Your task to perform on an android device: turn notification dots on Image 0: 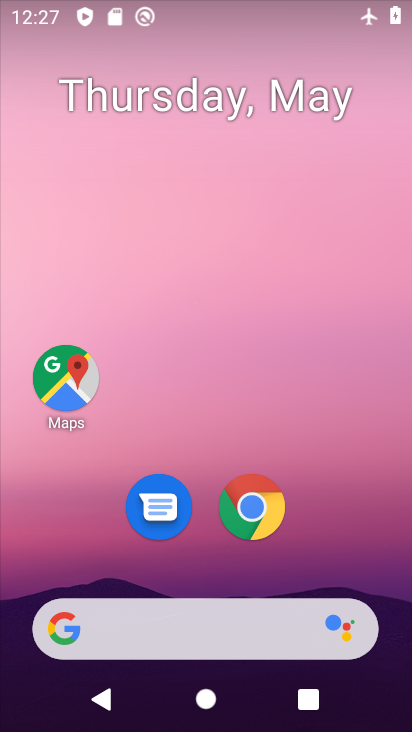
Step 0: drag from (186, 575) to (243, 141)
Your task to perform on an android device: turn notification dots on Image 1: 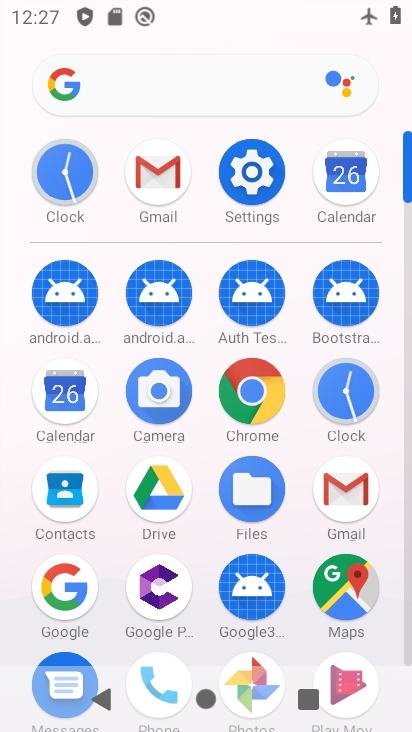
Step 1: click (243, 141)
Your task to perform on an android device: turn notification dots on Image 2: 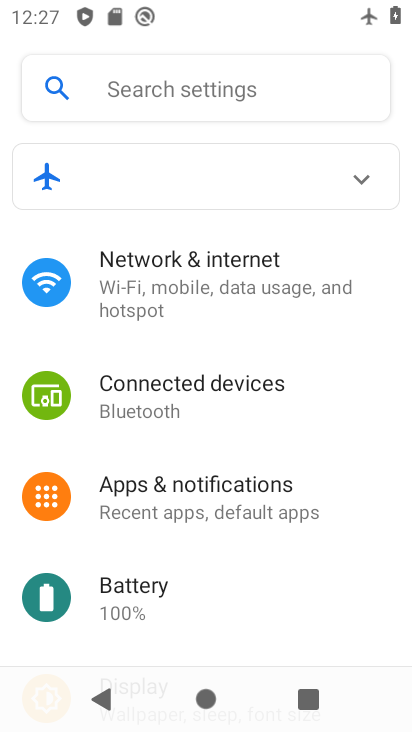
Step 2: click (196, 501)
Your task to perform on an android device: turn notification dots on Image 3: 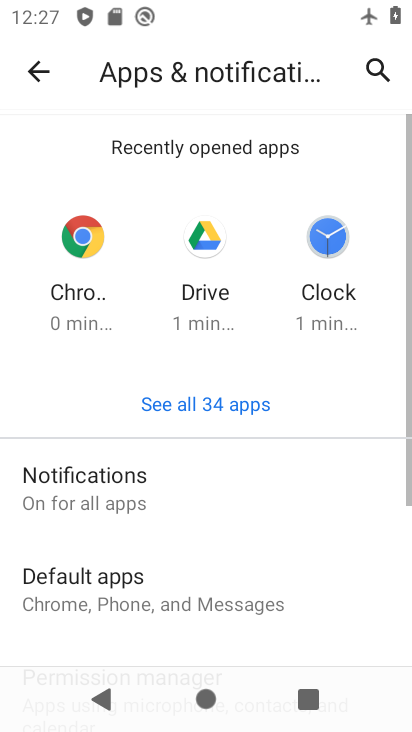
Step 3: click (196, 501)
Your task to perform on an android device: turn notification dots on Image 4: 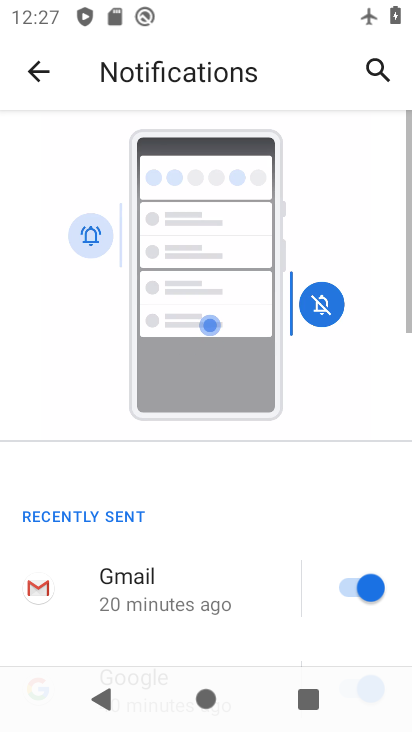
Step 4: drag from (196, 501) to (209, 217)
Your task to perform on an android device: turn notification dots on Image 5: 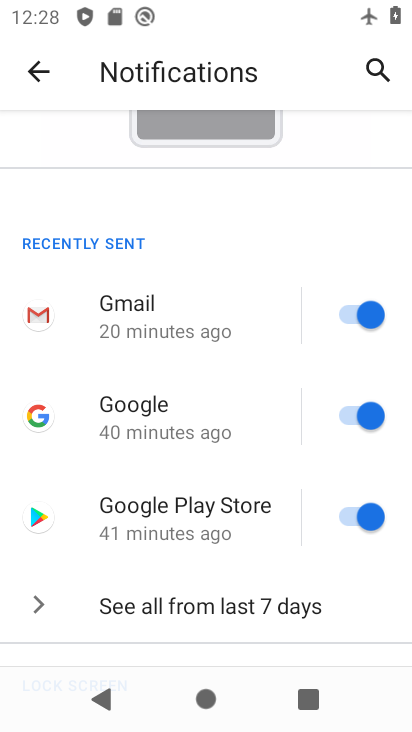
Step 5: drag from (213, 633) to (220, 334)
Your task to perform on an android device: turn notification dots on Image 6: 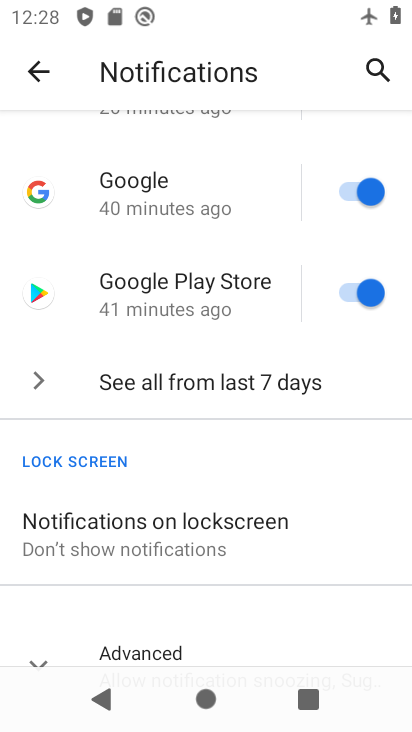
Step 6: drag from (200, 617) to (213, 364)
Your task to perform on an android device: turn notification dots on Image 7: 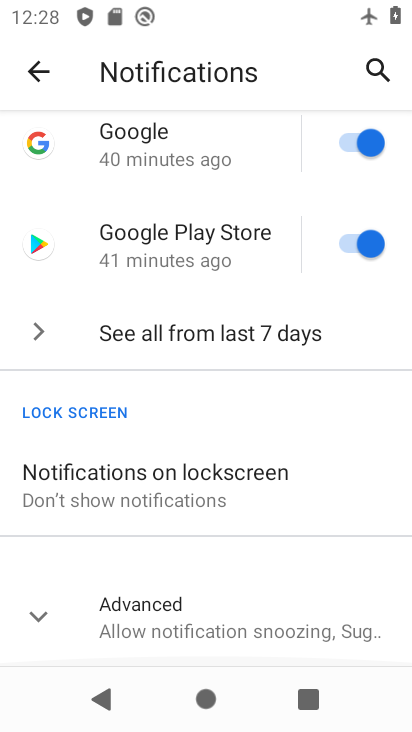
Step 7: click (183, 607)
Your task to perform on an android device: turn notification dots on Image 8: 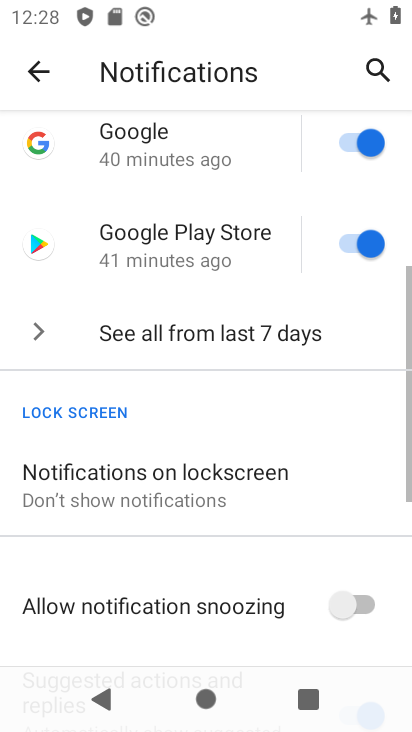
Step 8: task complete